Your task to perform on an android device: set the stopwatch Image 0: 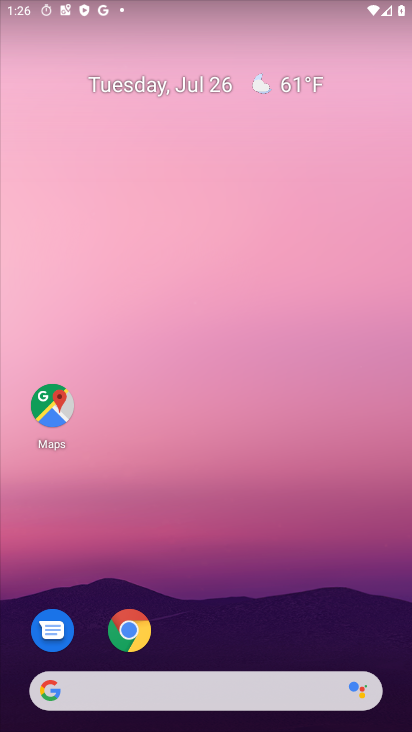
Step 0: drag from (197, 641) to (266, 6)
Your task to perform on an android device: set the stopwatch Image 1: 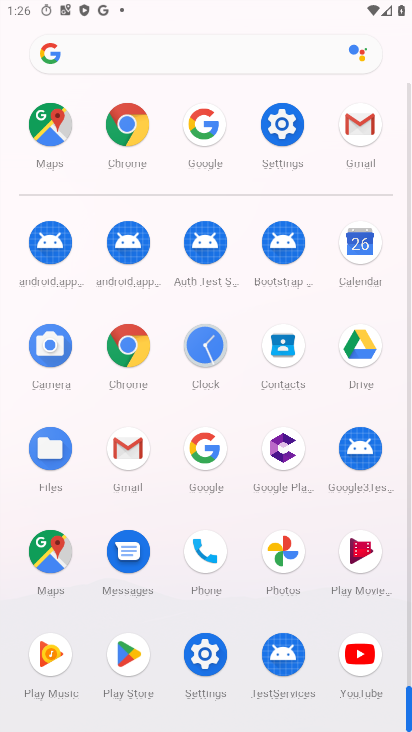
Step 1: click (204, 364)
Your task to perform on an android device: set the stopwatch Image 2: 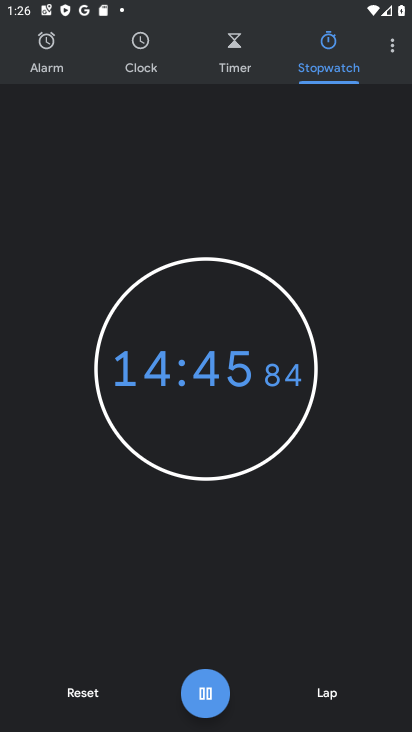
Step 2: task complete